Your task to perform on an android device: toggle notifications settings in the gmail app Image 0: 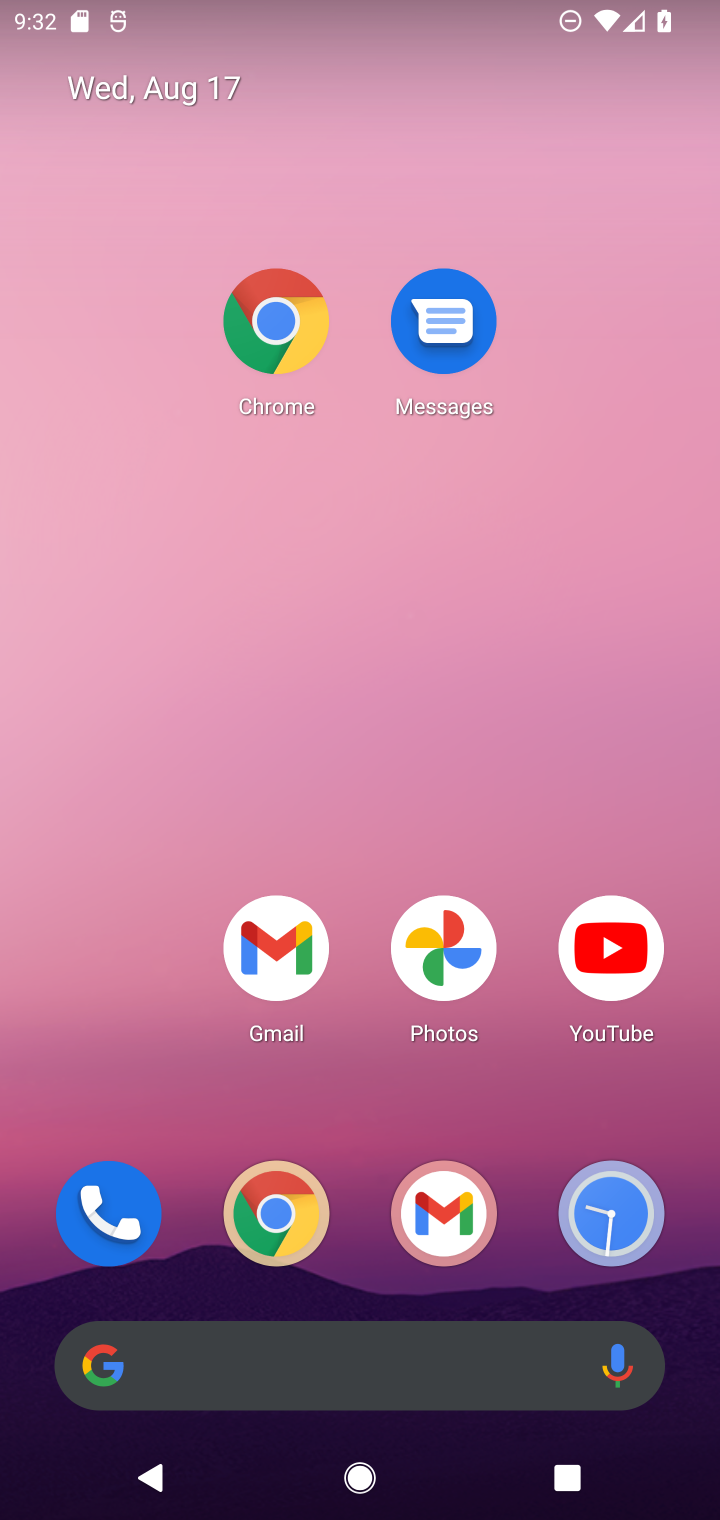
Step 0: click (476, 1240)
Your task to perform on an android device: toggle notifications settings in the gmail app Image 1: 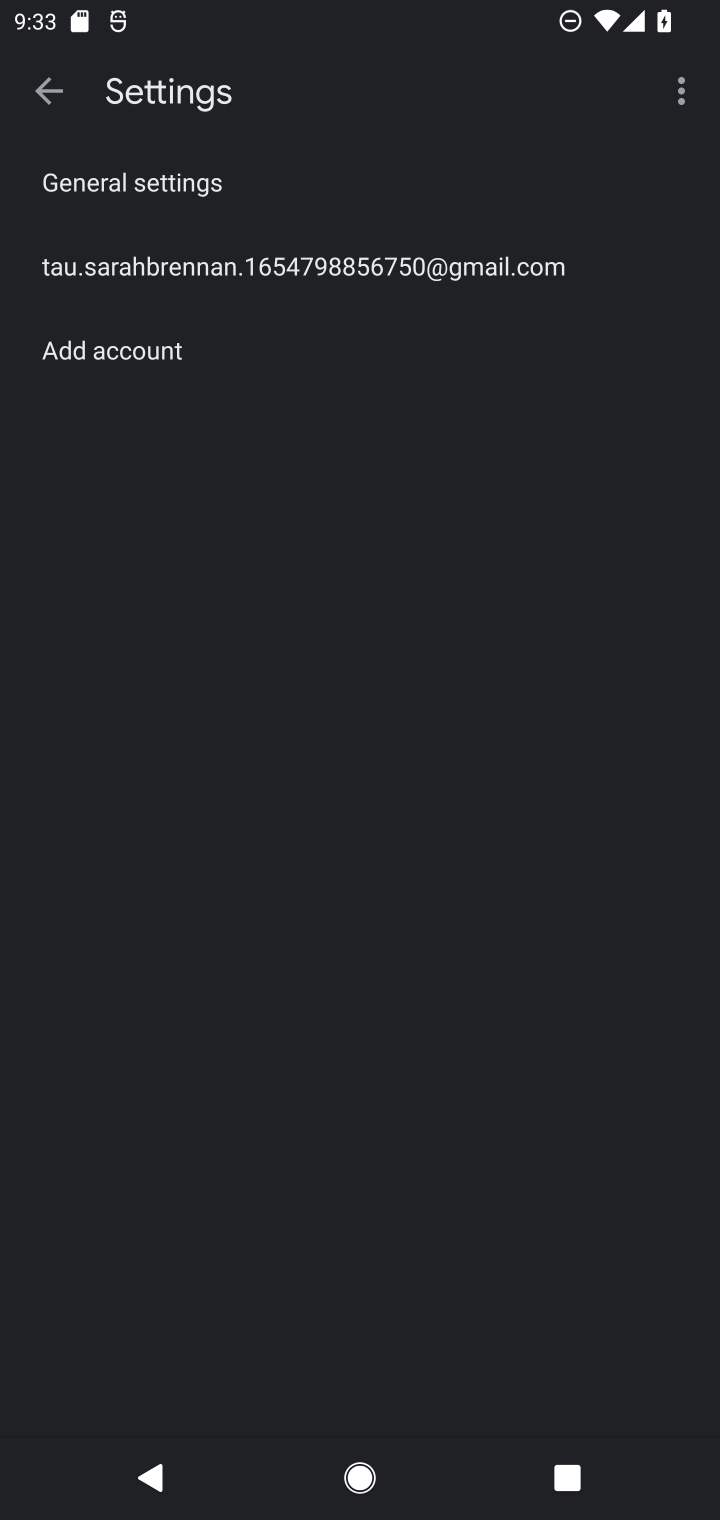
Step 1: click (402, 259)
Your task to perform on an android device: toggle notifications settings in the gmail app Image 2: 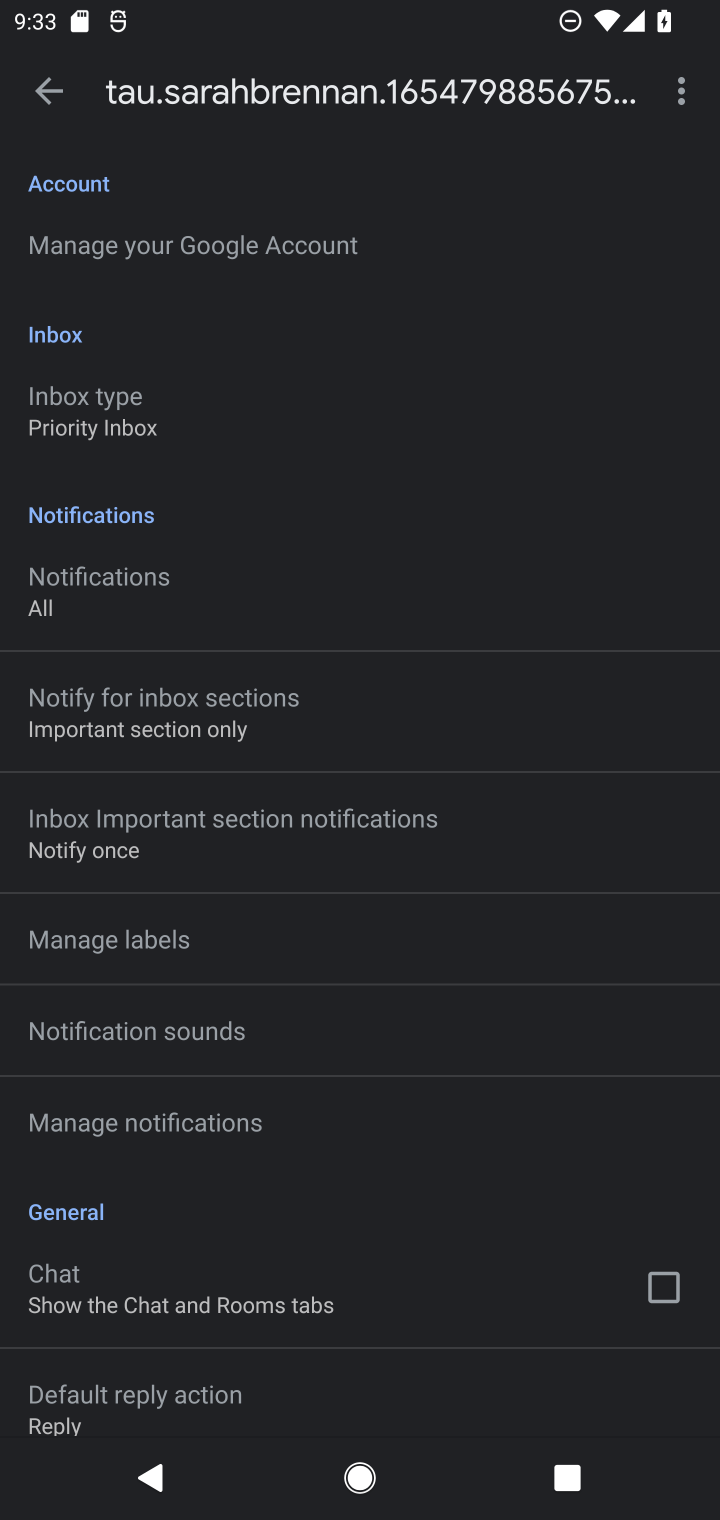
Step 2: task complete